Your task to perform on an android device: open device folders in google photos Image 0: 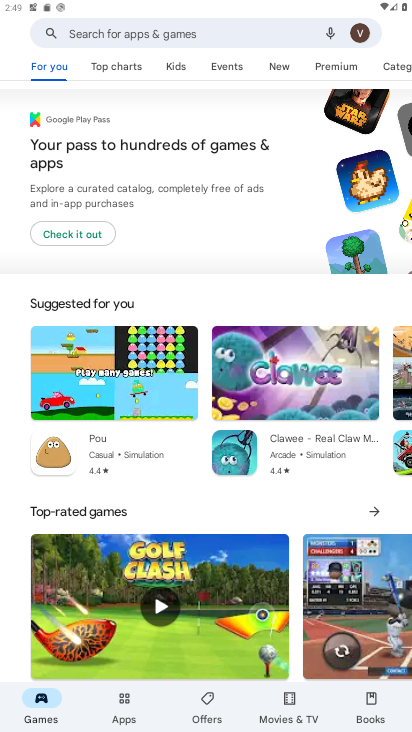
Step 0: press home button
Your task to perform on an android device: open device folders in google photos Image 1: 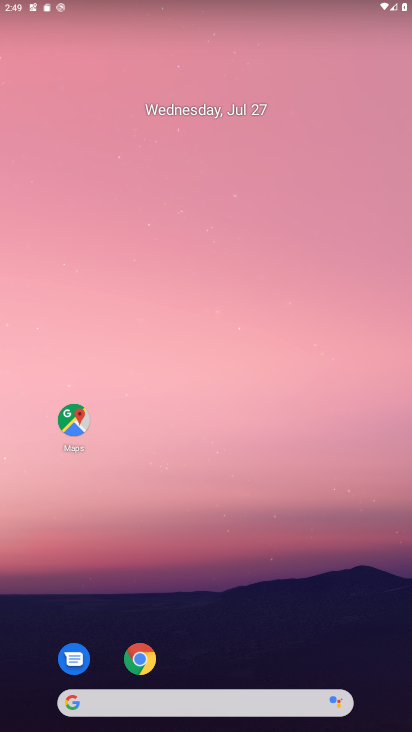
Step 1: drag from (249, 655) to (242, 282)
Your task to perform on an android device: open device folders in google photos Image 2: 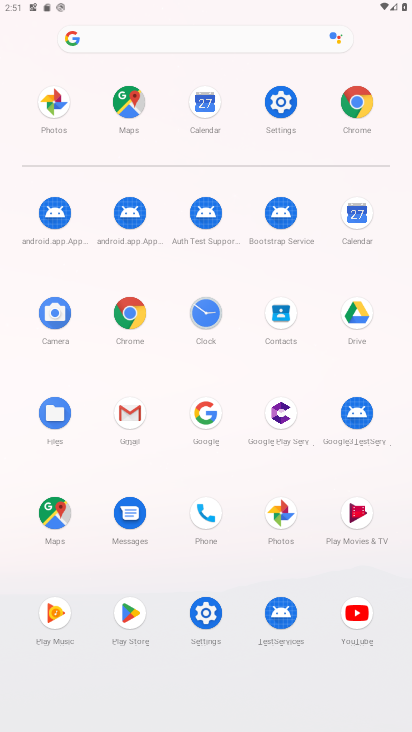
Step 2: click (285, 513)
Your task to perform on an android device: open device folders in google photos Image 3: 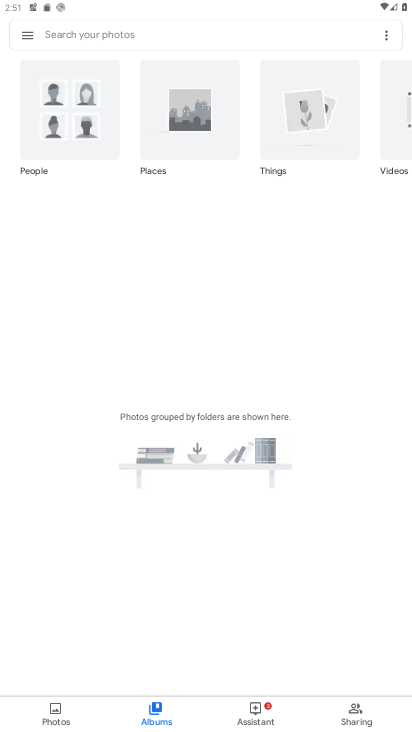
Step 3: click (25, 28)
Your task to perform on an android device: open device folders in google photos Image 4: 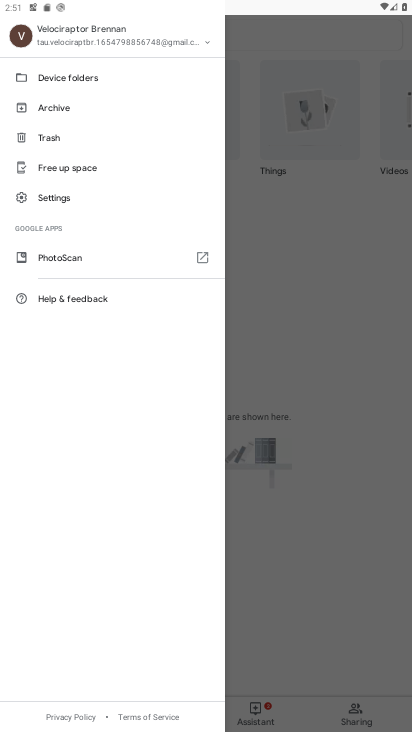
Step 4: click (77, 81)
Your task to perform on an android device: open device folders in google photos Image 5: 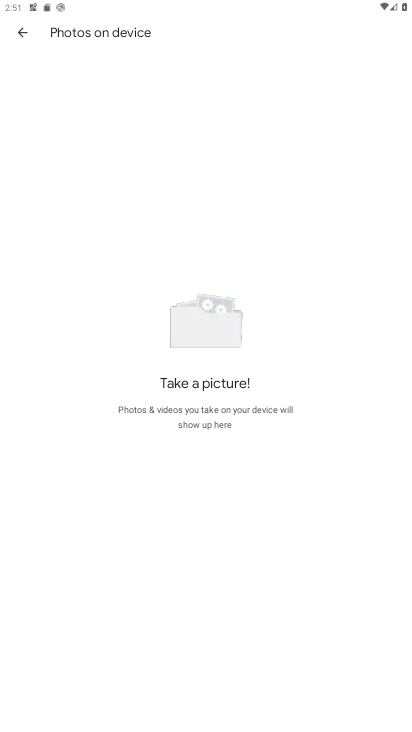
Step 5: task complete